Your task to perform on an android device: Search for Italian restaurants on Maps Image 0: 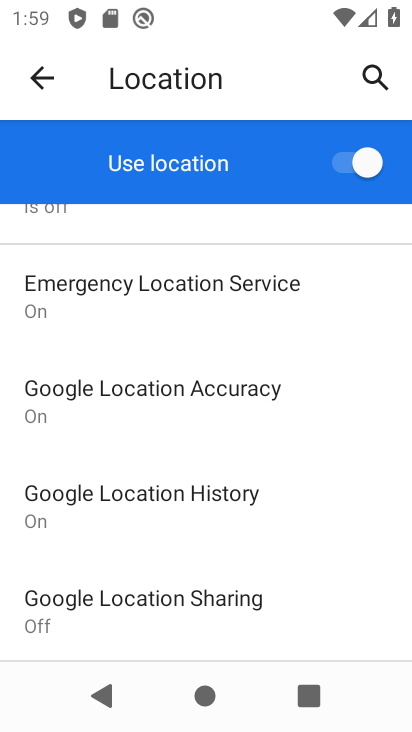
Step 0: press back button
Your task to perform on an android device: Search for Italian restaurants on Maps Image 1: 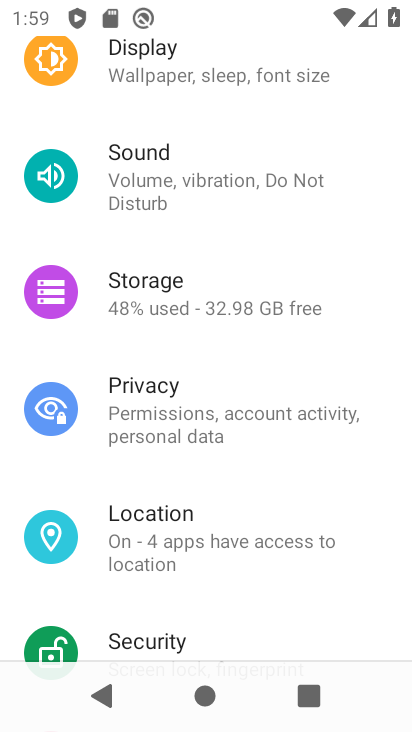
Step 1: press home button
Your task to perform on an android device: Search for Italian restaurants on Maps Image 2: 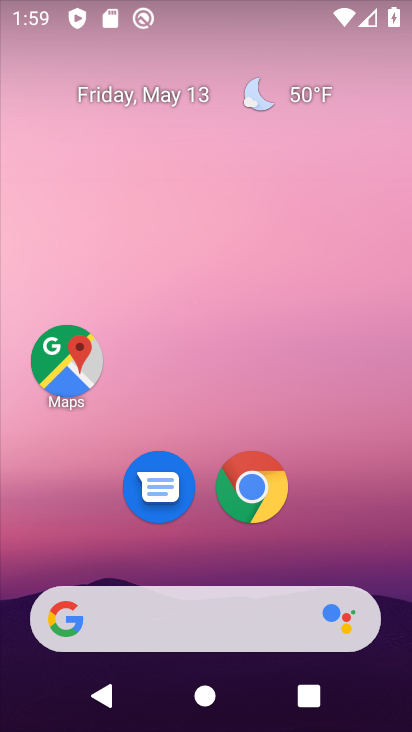
Step 2: click (55, 333)
Your task to perform on an android device: Search for Italian restaurants on Maps Image 3: 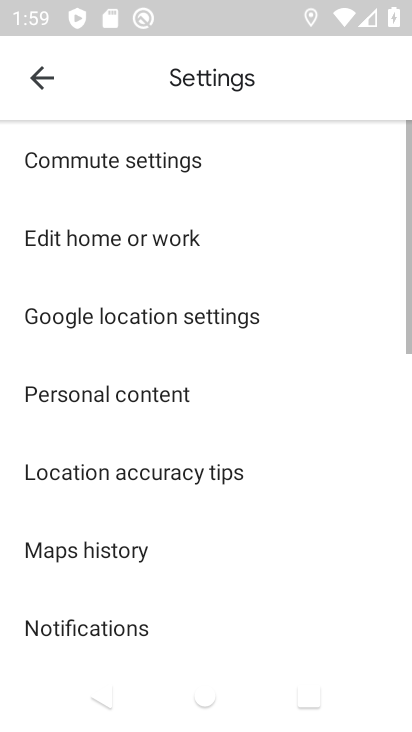
Step 3: click (18, 74)
Your task to perform on an android device: Search for Italian restaurants on Maps Image 4: 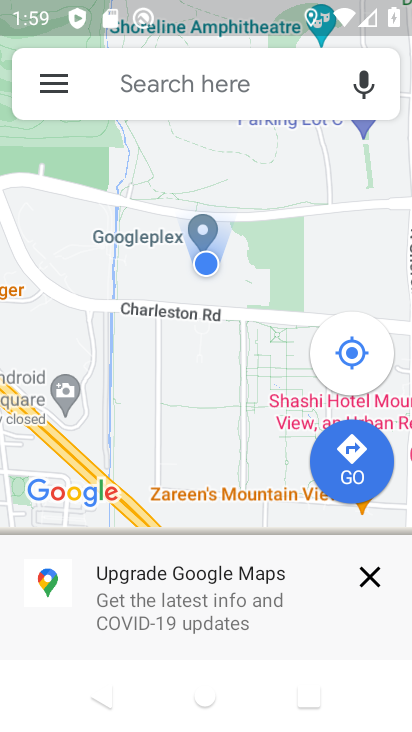
Step 4: click (225, 104)
Your task to perform on an android device: Search for Italian restaurants on Maps Image 5: 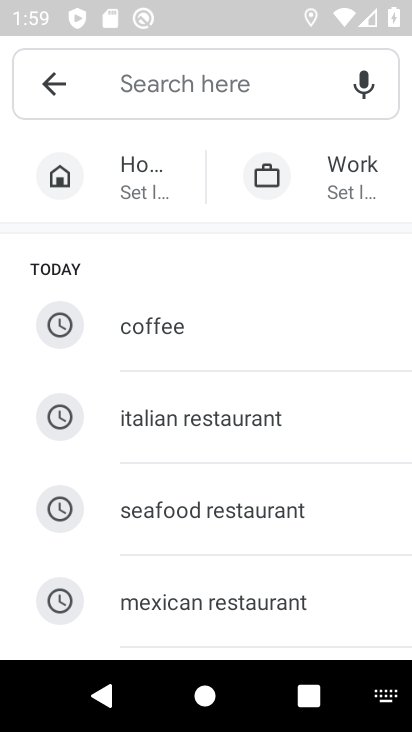
Step 5: type "Italian restaurants"
Your task to perform on an android device: Search for Italian restaurants on Maps Image 6: 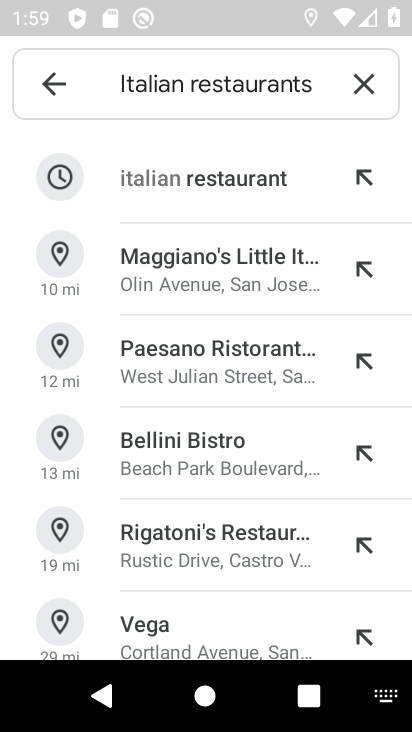
Step 6: click (158, 185)
Your task to perform on an android device: Search for Italian restaurants on Maps Image 7: 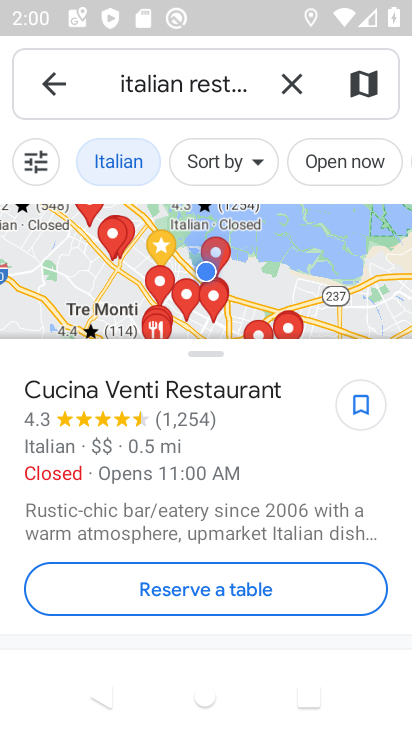
Step 7: task complete